Your task to perform on an android device: Open calendar and show me the third week of next month Image 0: 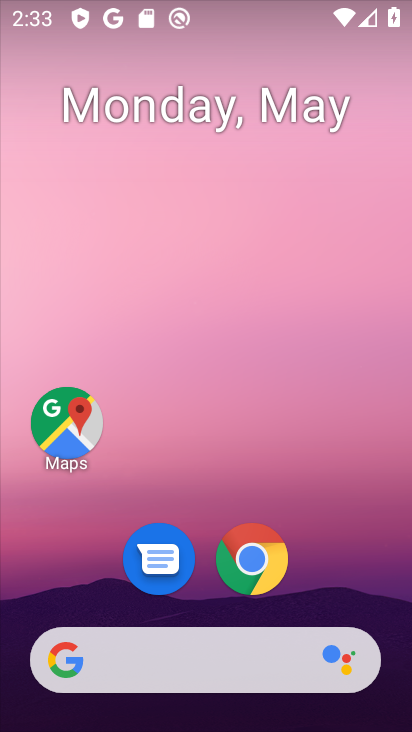
Step 0: drag from (329, 523) to (325, 5)
Your task to perform on an android device: Open calendar and show me the third week of next month Image 1: 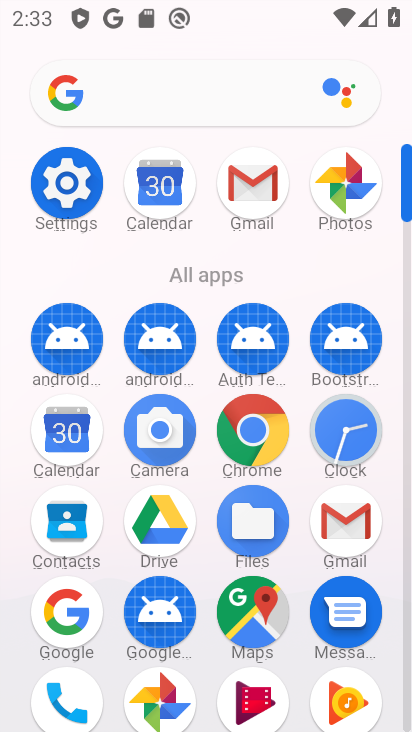
Step 1: click (42, 441)
Your task to perform on an android device: Open calendar and show me the third week of next month Image 2: 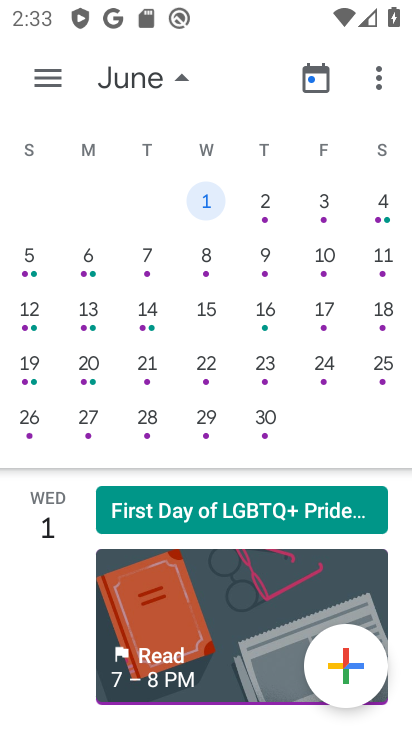
Step 2: click (45, 316)
Your task to perform on an android device: Open calendar and show me the third week of next month Image 3: 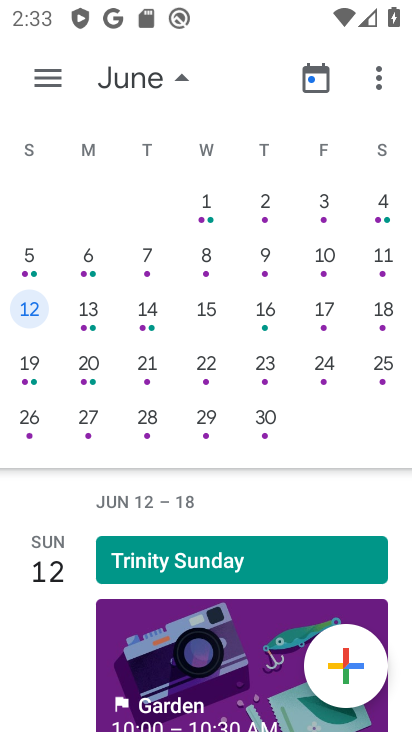
Step 3: task complete